Your task to perform on an android device: turn off picture-in-picture Image 0: 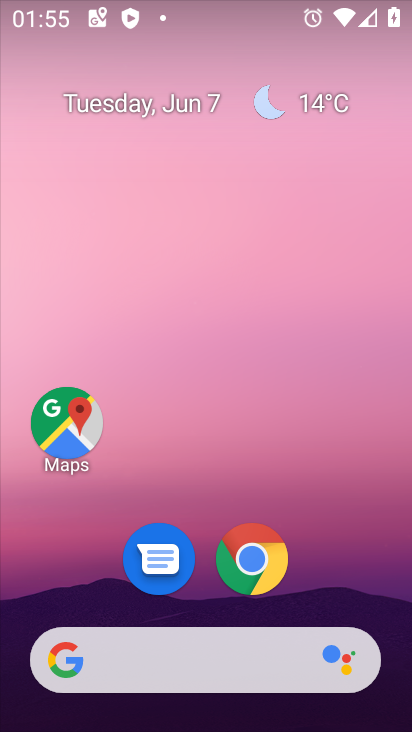
Step 0: click (255, 559)
Your task to perform on an android device: turn off picture-in-picture Image 1: 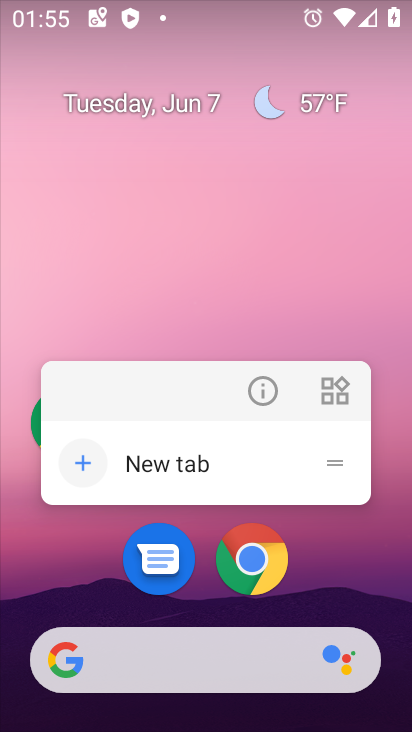
Step 1: click (263, 392)
Your task to perform on an android device: turn off picture-in-picture Image 2: 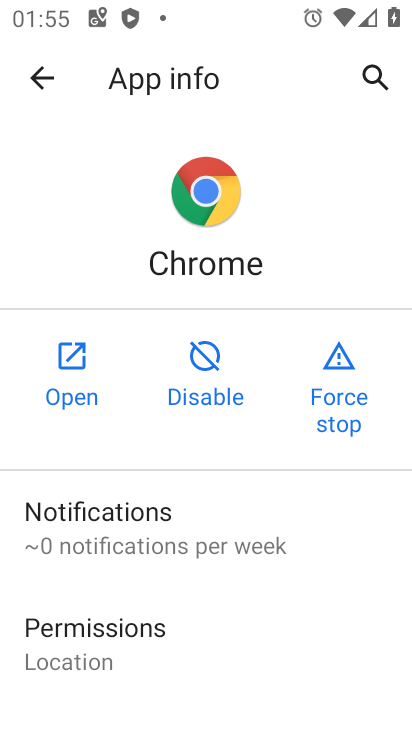
Step 2: drag from (227, 588) to (284, 369)
Your task to perform on an android device: turn off picture-in-picture Image 3: 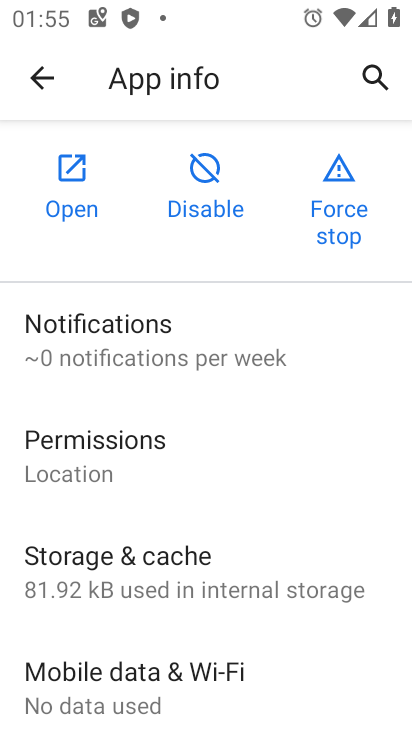
Step 3: drag from (152, 498) to (217, 368)
Your task to perform on an android device: turn off picture-in-picture Image 4: 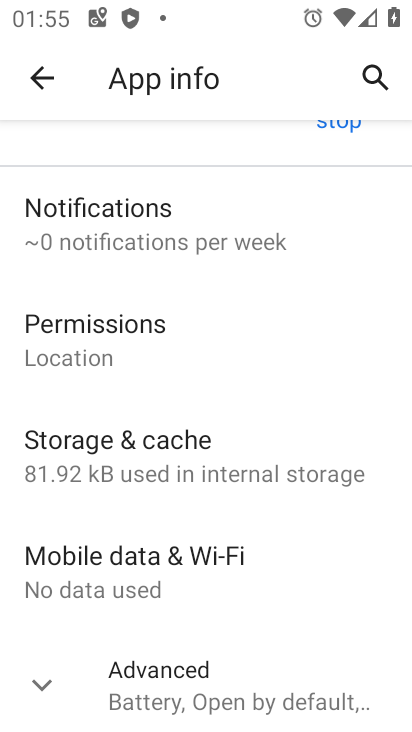
Step 4: drag from (173, 507) to (252, 358)
Your task to perform on an android device: turn off picture-in-picture Image 5: 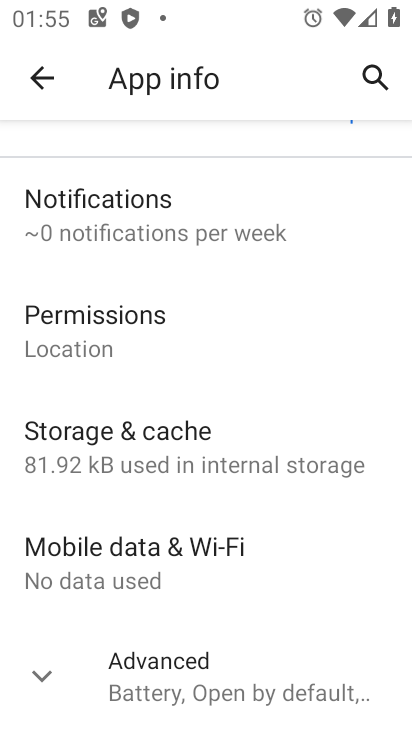
Step 5: click (222, 693)
Your task to perform on an android device: turn off picture-in-picture Image 6: 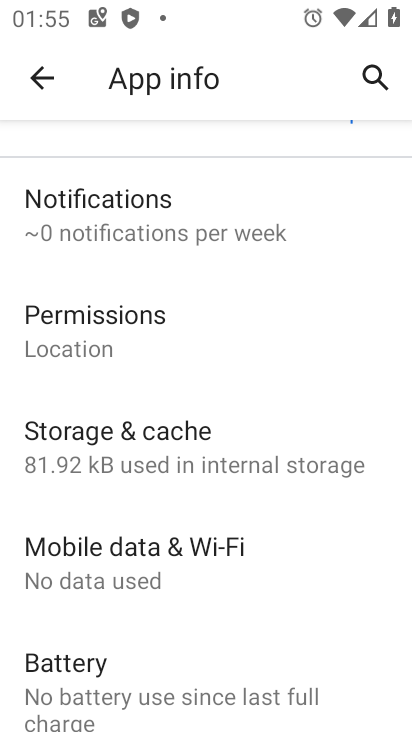
Step 6: drag from (158, 626) to (237, 417)
Your task to perform on an android device: turn off picture-in-picture Image 7: 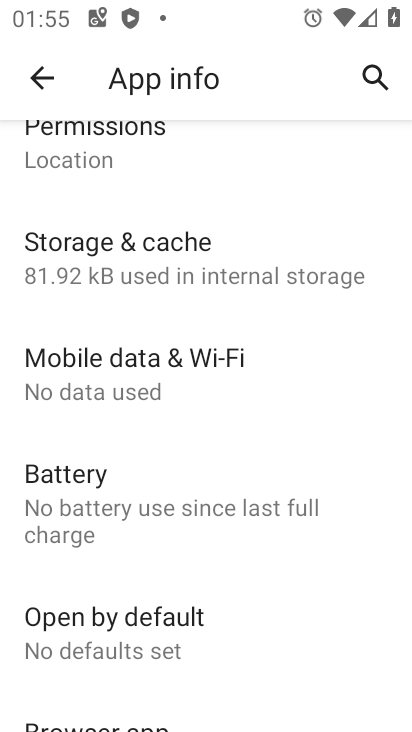
Step 7: drag from (168, 561) to (247, 433)
Your task to perform on an android device: turn off picture-in-picture Image 8: 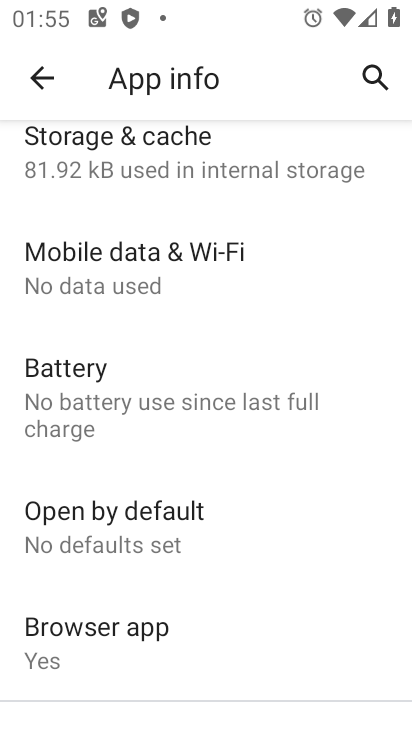
Step 8: drag from (138, 581) to (193, 447)
Your task to perform on an android device: turn off picture-in-picture Image 9: 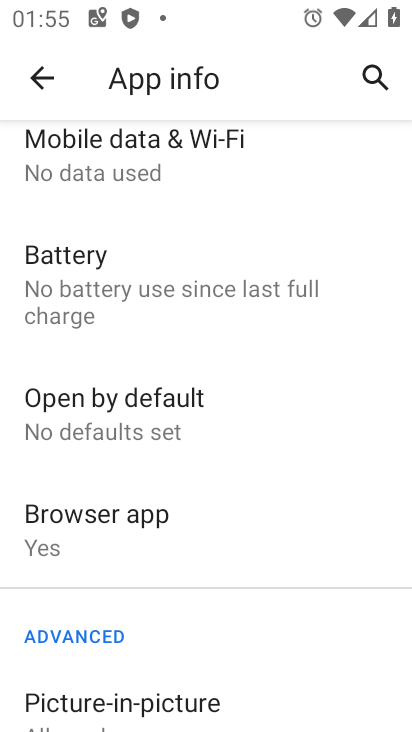
Step 9: drag from (197, 646) to (244, 520)
Your task to perform on an android device: turn off picture-in-picture Image 10: 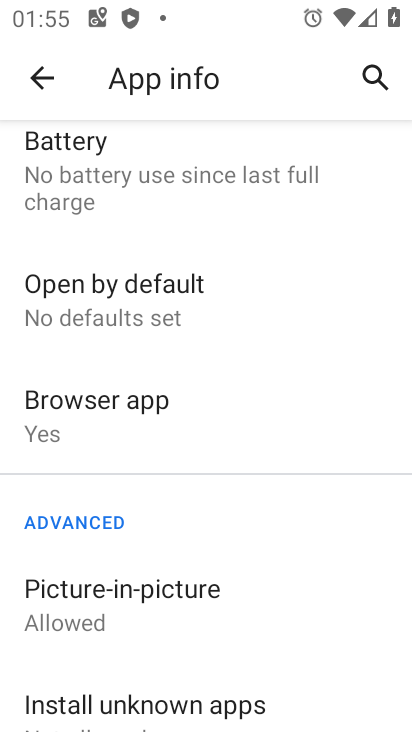
Step 10: click (181, 604)
Your task to perform on an android device: turn off picture-in-picture Image 11: 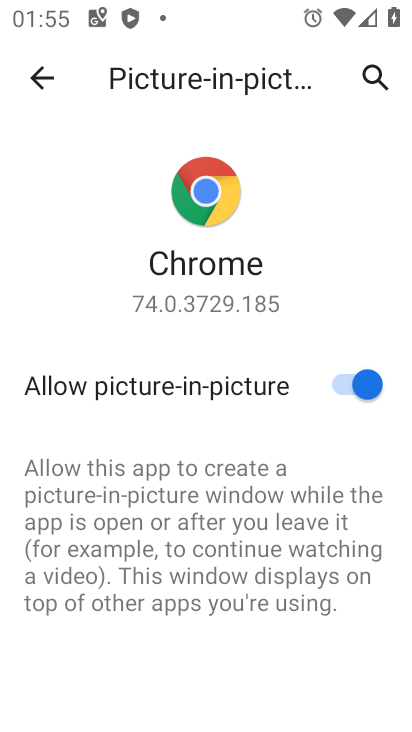
Step 11: click (342, 385)
Your task to perform on an android device: turn off picture-in-picture Image 12: 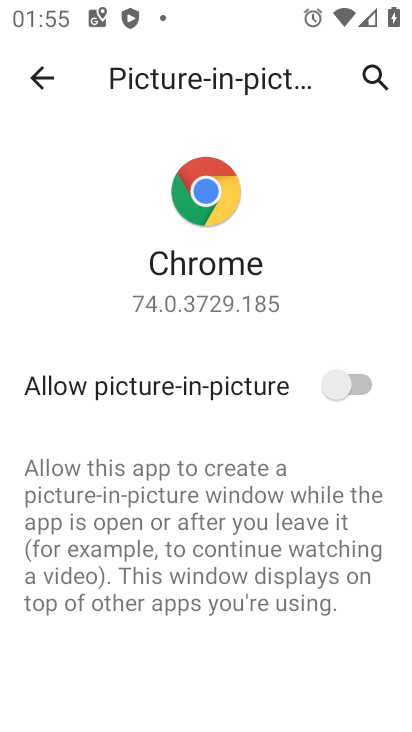
Step 12: task complete